Your task to perform on an android device: Open display settings Image 0: 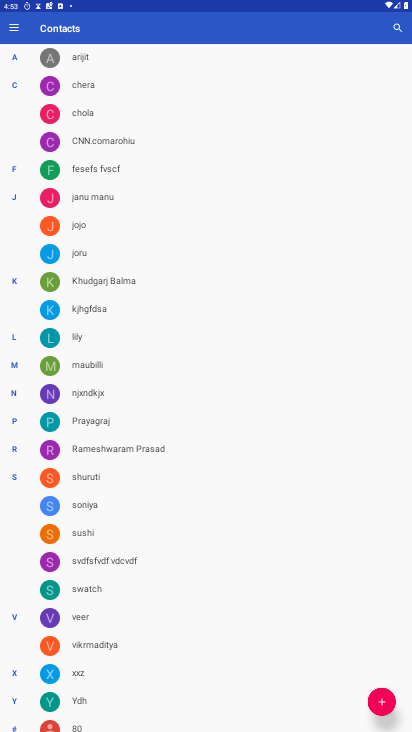
Step 0: press home button
Your task to perform on an android device: Open display settings Image 1: 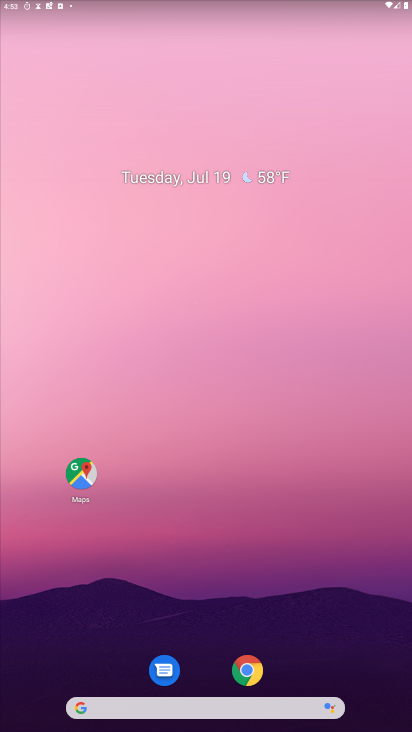
Step 1: drag from (245, 678) to (318, 2)
Your task to perform on an android device: Open display settings Image 2: 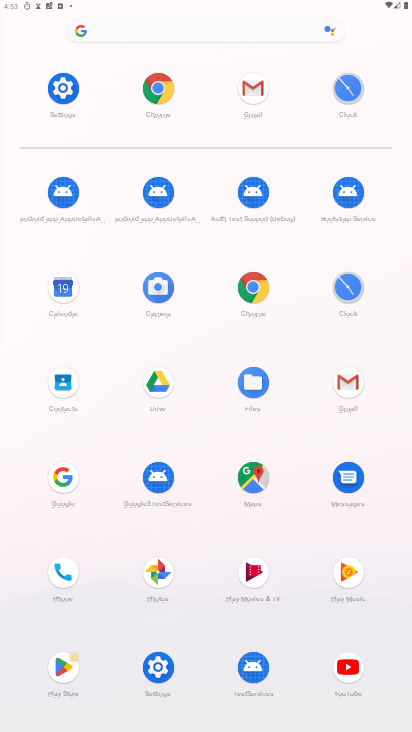
Step 2: click (53, 93)
Your task to perform on an android device: Open display settings Image 3: 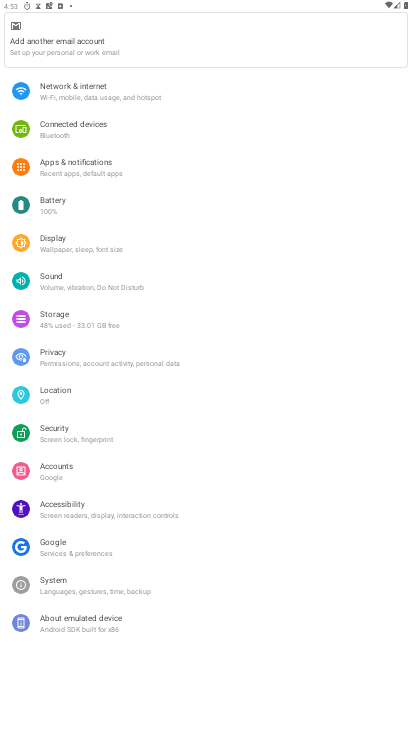
Step 3: click (57, 242)
Your task to perform on an android device: Open display settings Image 4: 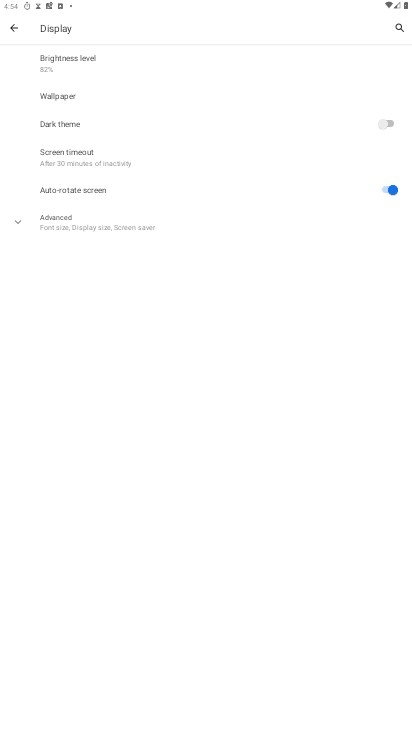
Step 4: task complete